Your task to perform on an android device: Open Chrome and go to settings Image 0: 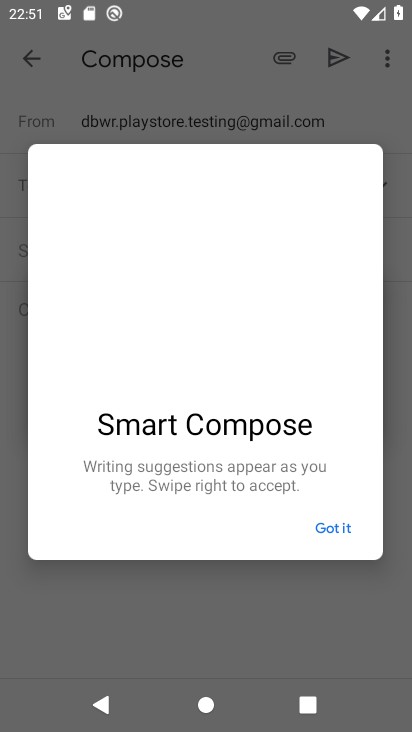
Step 0: press home button
Your task to perform on an android device: Open Chrome and go to settings Image 1: 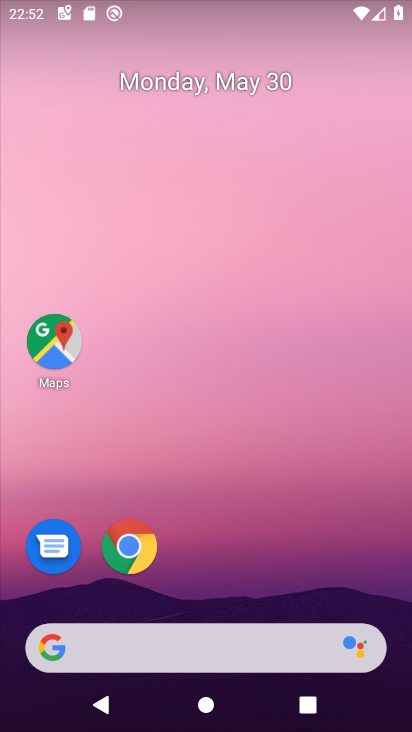
Step 1: click (124, 545)
Your task to perform on an android device: Open Chrome and go to settings Image 2: 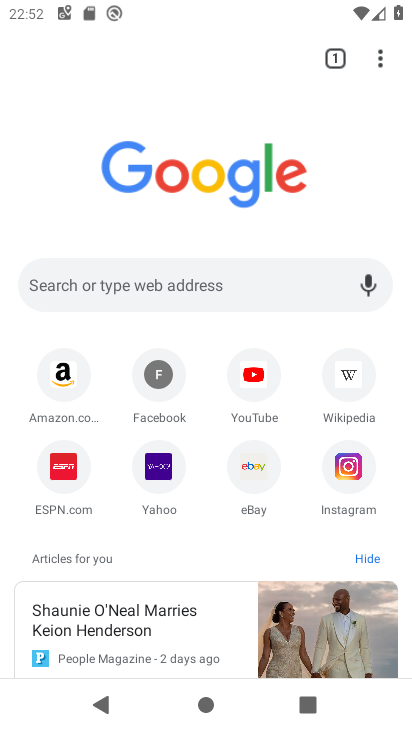
Step 2: click (378, 50)
Your task to perform on an android device: Open Chrome and go to settings Image 3: 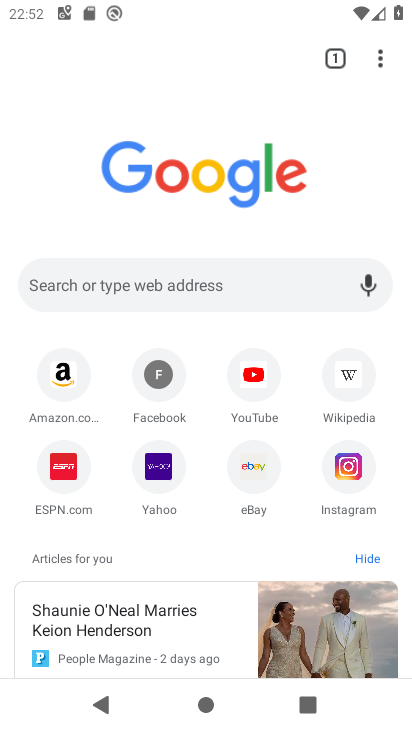
Step 3: click (380, 37)
Your task to perform on an android device: Open Chrome and go to settings Image 4: 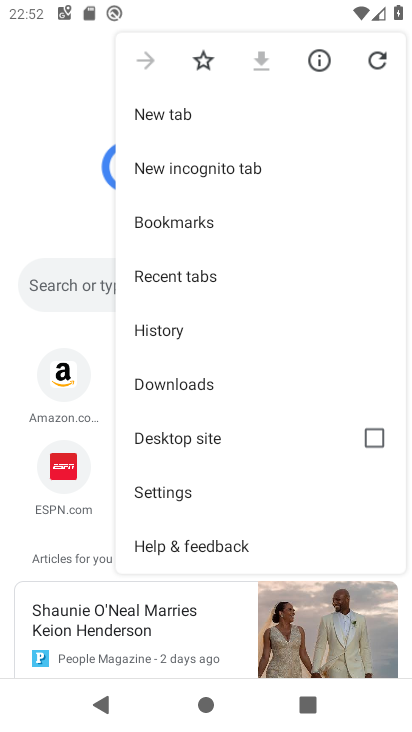
Step 4: click (162, 488)
Your task to perform on an android device: Open Chrome and go to settings Image 5: 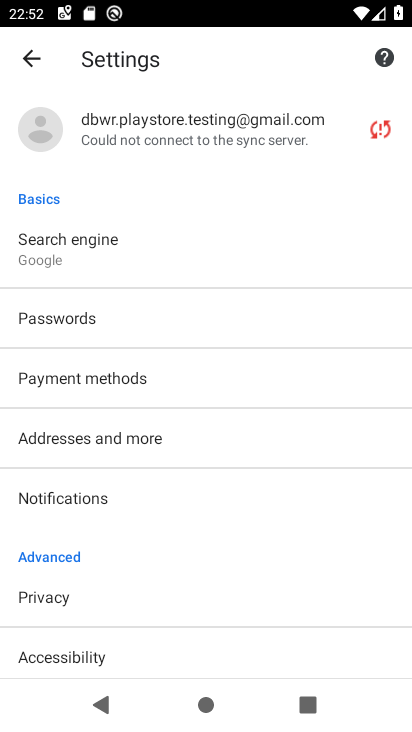
Step 5: task complete